Your task to perform on an android device: see tabs open on other devices in the chrome app Image 0: 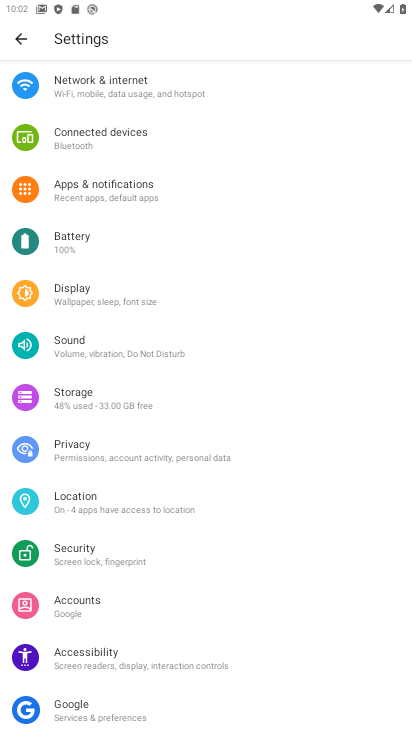
Step 0: press home button
Your task to perform on an android device: see tabs open on other devices in the chrome app Image 1: 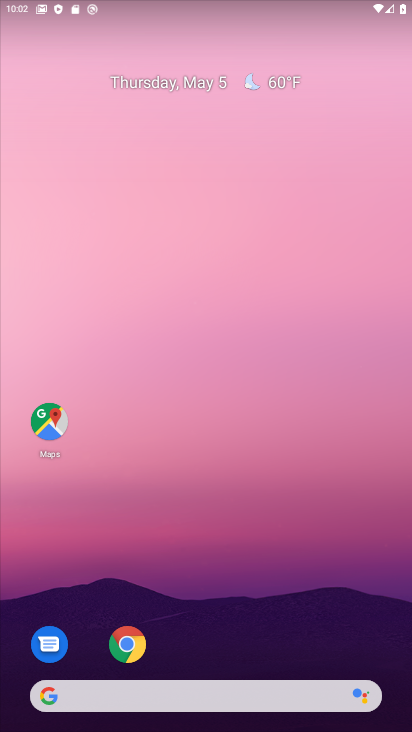
Step 1: drag from (385, 631) to (385, 142)
Your task to perform on an android device: see tabs open on other devices in the chrome app Image 2: 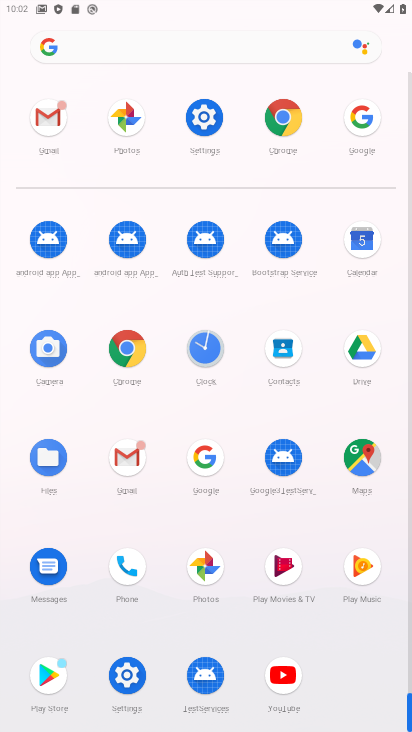
Step 2: click (127, 354)
Your task to perform on an android device: see tabs open on other devices in the chrome app Image 3: 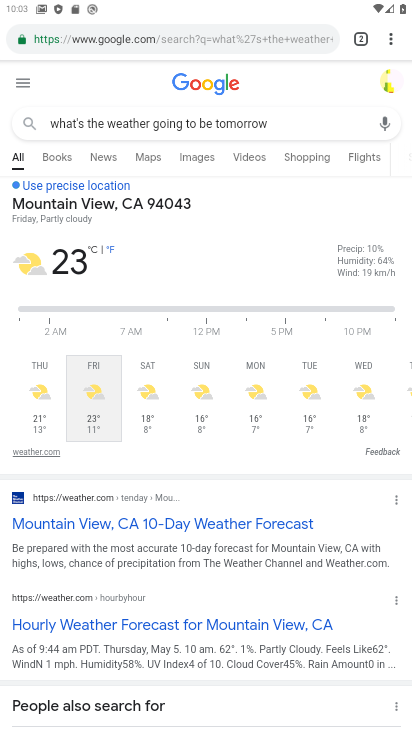
Step 3: click (361, 35)
Your task to perform on an android device: see tabs open on other devices in the chrome app Image 4: 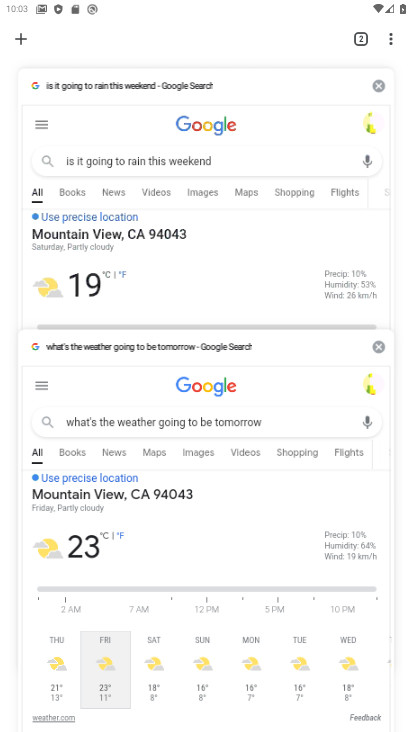
Step 4: click (15, 38)
Your task to perform on an android device: see tabs open on other devices in the chrome app Image 5: 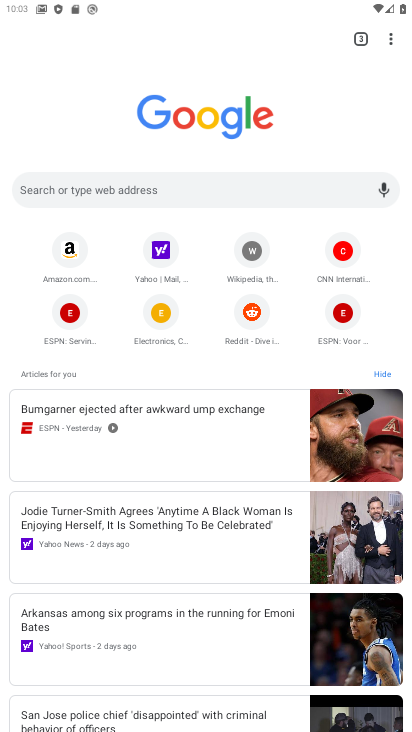
Step 5: click (364, 45)
Your task to perform on an android device: see tabs open on other devices in the chrome app Image 6: 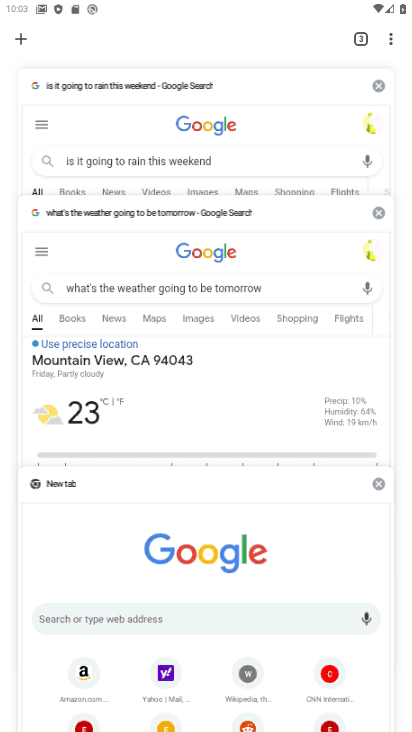
Step 6: task complete